Your task to perform on an android device: turn off smart reply in the gmail app Image 0: 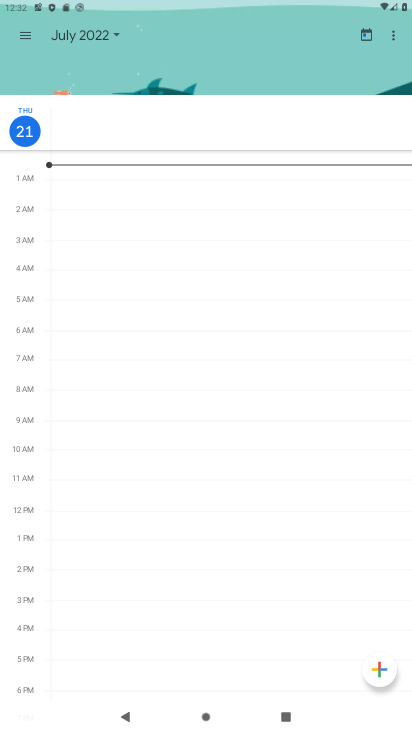
Step 0: press home button
Your task to perform on an android device: turn off smart reply in the gmail app Image 1: 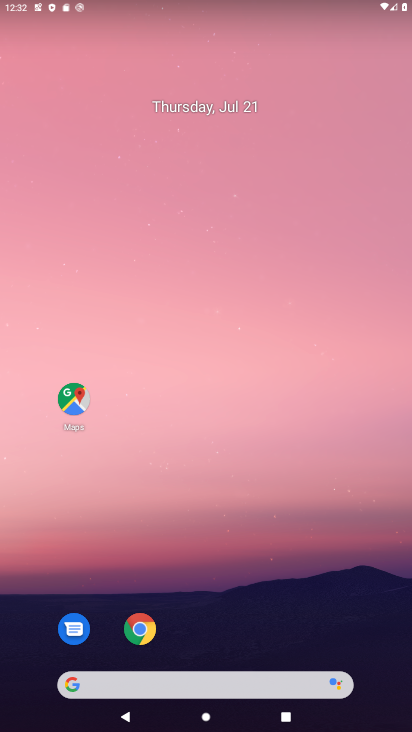
Step 1: click (243, 212)
Your task to perform on an android device: turn off smart reply in the gmail app Image 2: 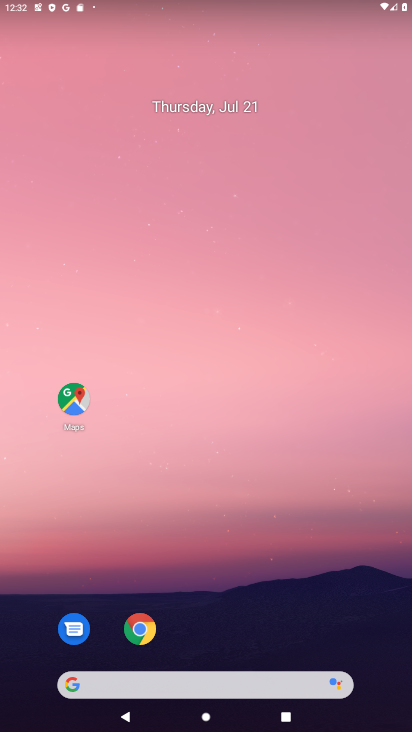
Step 2: drag from (327, 597) to (276, 108)
Your task to perform on an android device: turn off smart reply in the gmail app Image 3: 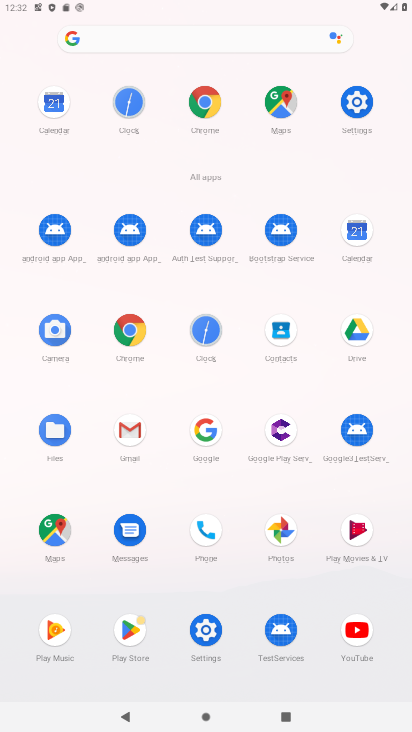
Step 3: click (127, 428)
Your task to perform on an android device: turn off smart reply in the gmail app Image 4: 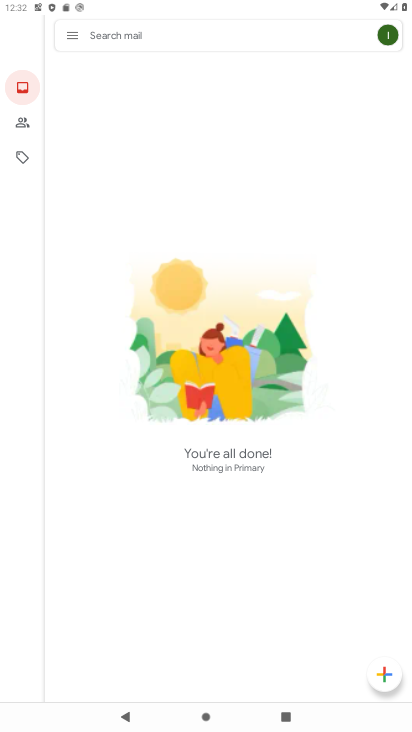
Step 4: click (70, 32)
Your task to perform on an android device: turn off smart reply in the gmail app Image 5: 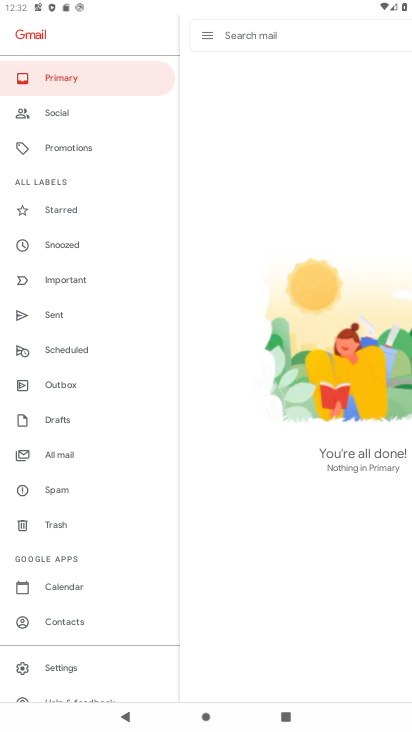
Step 5: click (58, 677)
Your task to perform on an android device: turn off smart reply in the gmail app Image 6: 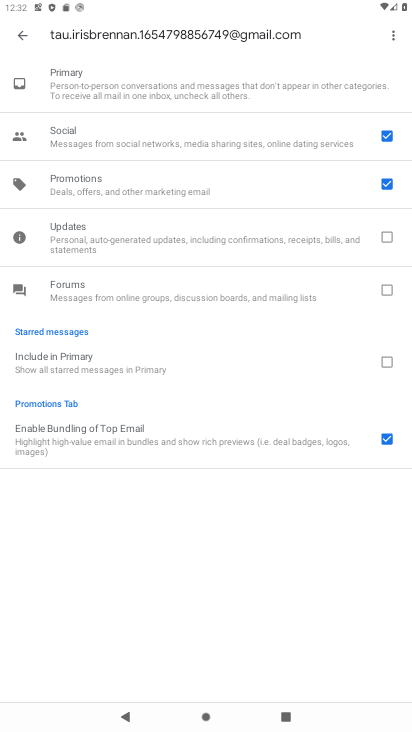
Step 6: click (30, 36)
Your task to perform on an android device: turn off smart reply in the gmail app Image 7: 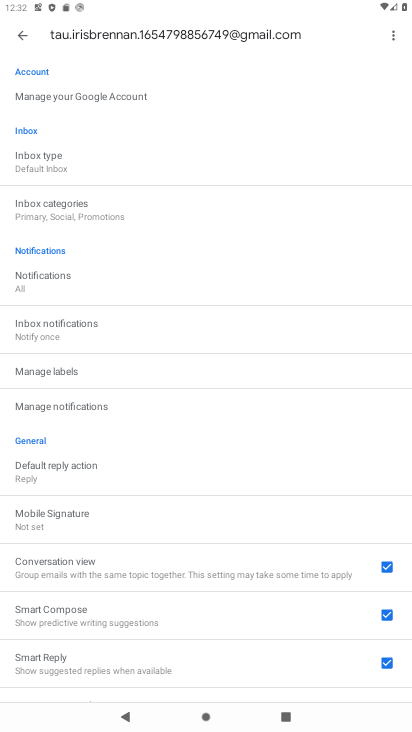
Step 7: click (391, 664)
Your task to perform on an android device: turn off smart reply in the gmail app Image 8: 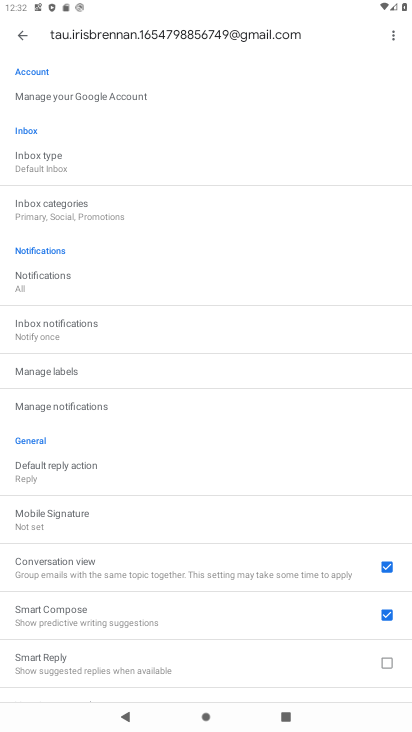
Step 8: task complete